Your task to perform on an android device: set the timer Image 0: 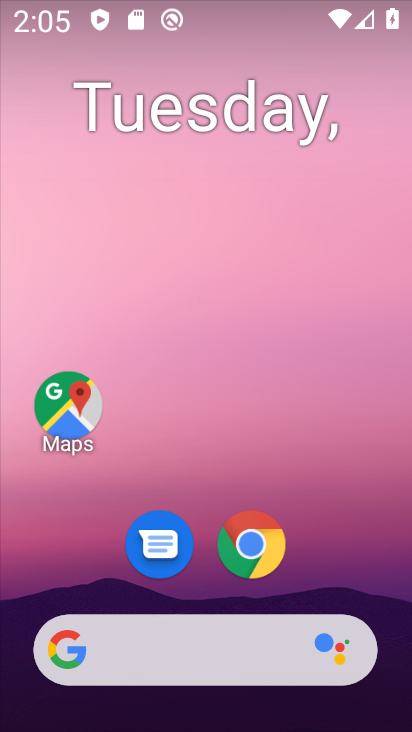
Step 0: drag from (348, 486) to (256, 9)
Your task to perform on an android device: set the timer Image 1: 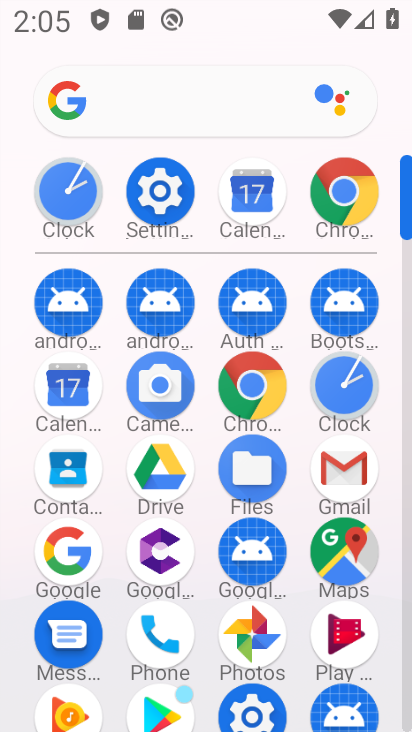
Step 1: drag from (7, 544) to (15, 264)
Your task to perform on an android device: set the timer Image 2: 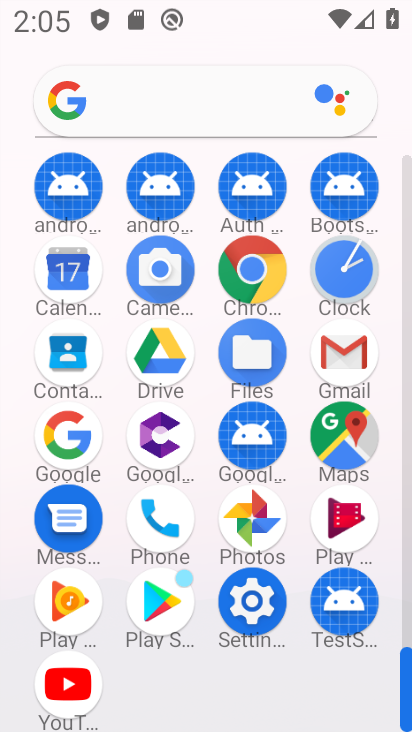
Step 2: click (343, 263)
Your task to perform on an android device: set the timer Image 3: 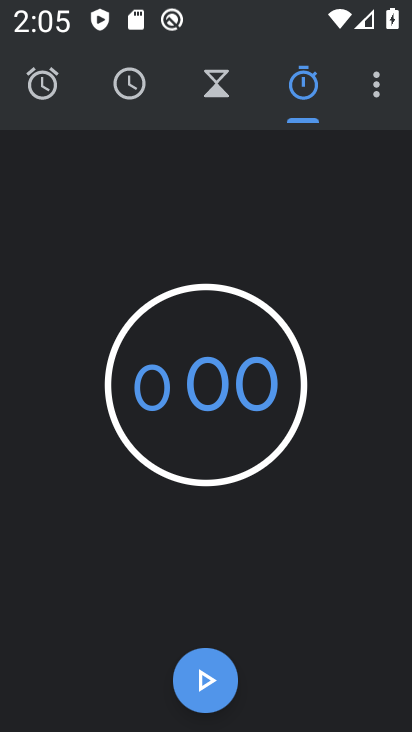
Step 3: click (235, 82)
Your task to perform on an android device: set the timer Image 4: 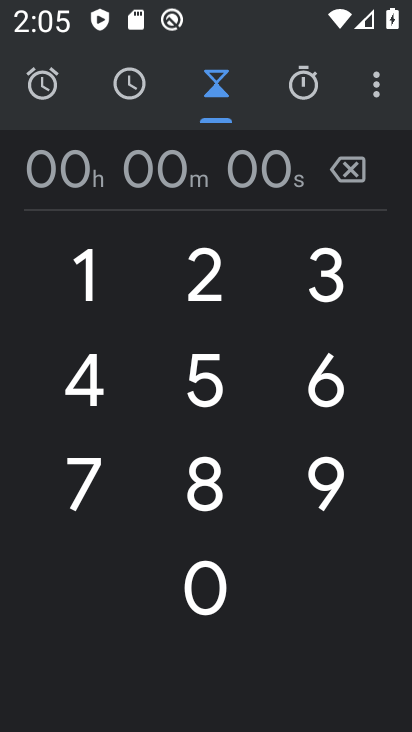
Step 4: click (88, 280)
Your task to perform on an android device: set the timer Image 5: 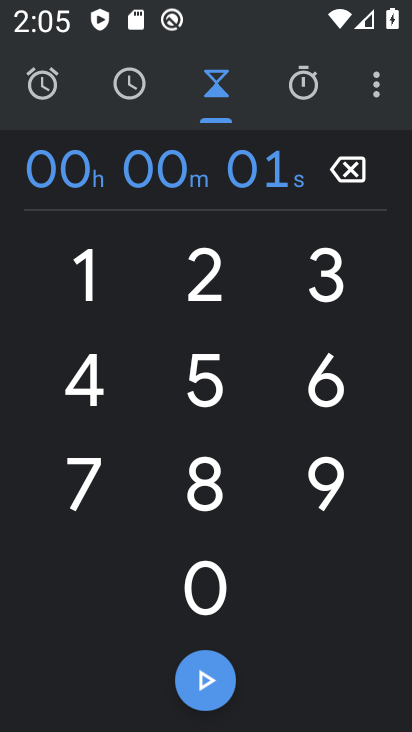
Step 5: drag from (189, 278) to (40, 383)
Your task to perform on an android device: set the timer Image 6: 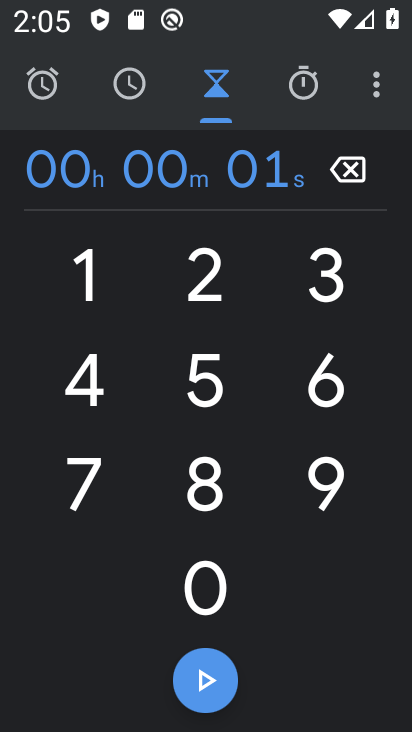
Step 6: click (80, 388)
Your task to perform on an android device: set the timer Image 7: 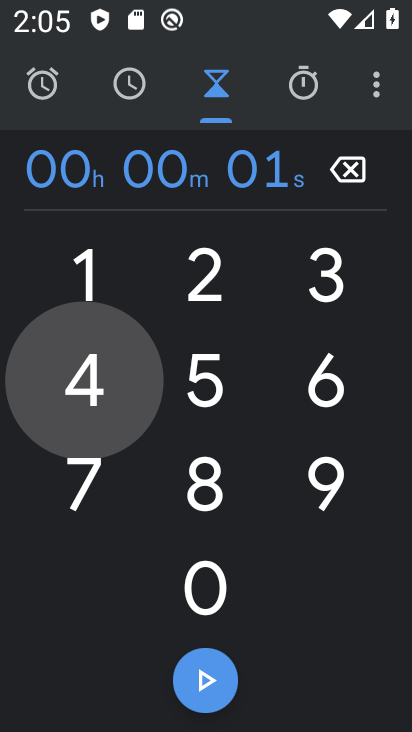
Step 7: click (83, 454)
Your task to perform on an android device: set the timer Image 8: 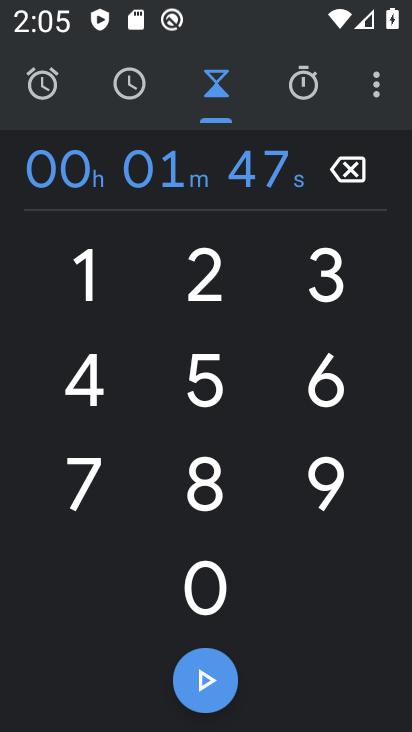
Step 8: click (211, 591)
Your task to perform on an android device: set the timer Image 9: 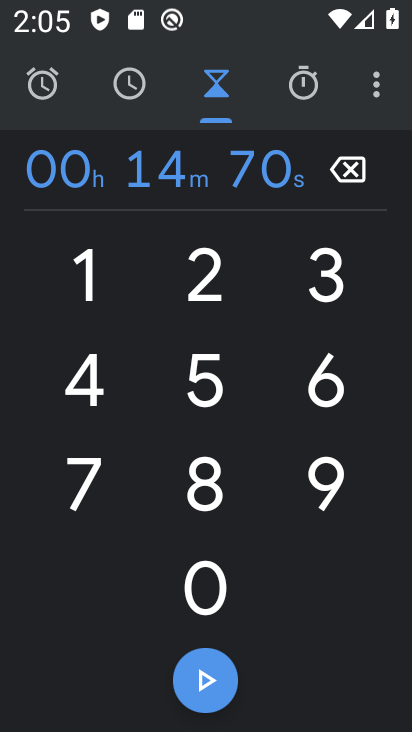
Step 9: click (207, 670)
Your task to perform on an android device: set the timer Image 10: 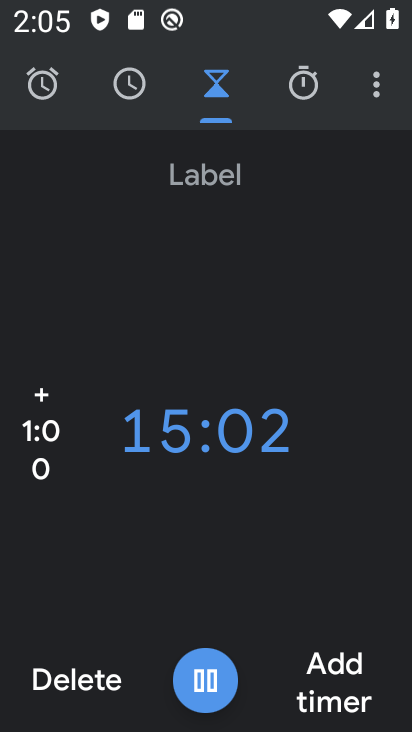
Step 10: task complete